Your task to perform on an android device: delete browsing data in the chrome app Image 0: 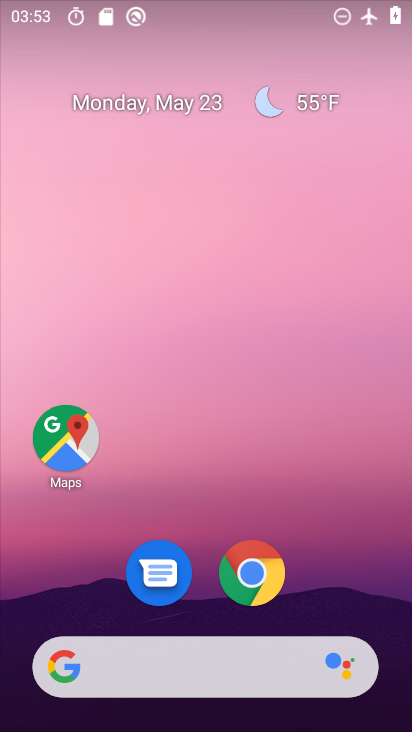
Step 0: click (248, 573)
Your task to perform on an android device: delete browsing data in the chrome app Image 1: 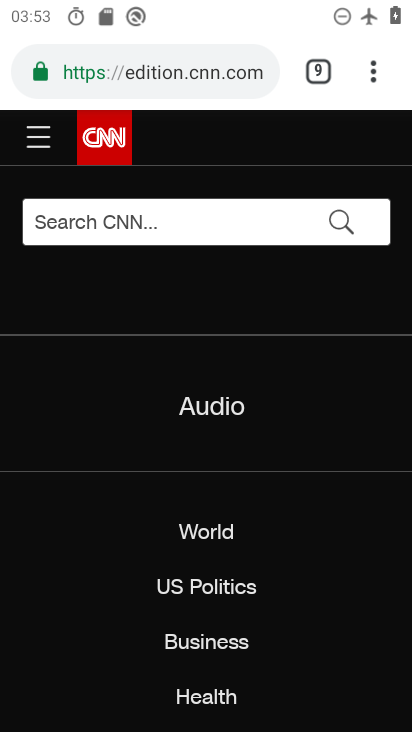
Step 1: click (378, 81)
Your task to perform on an android device: delete browsing data in the chrome app Image 2: 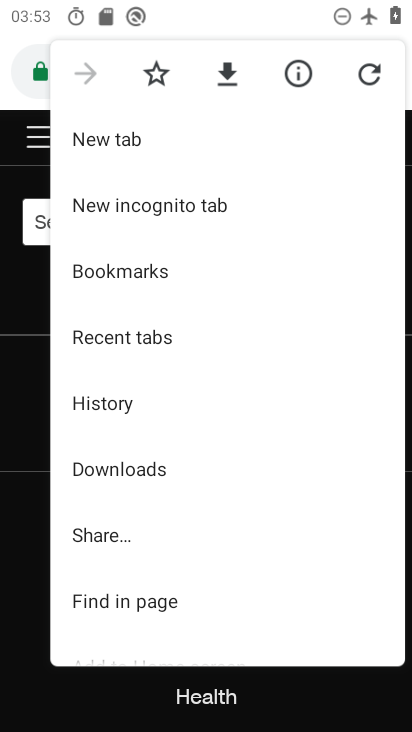
Step 2: click (112, 405)
Your task to perform on an android device: delete browsing data in the chrome app Image 3: 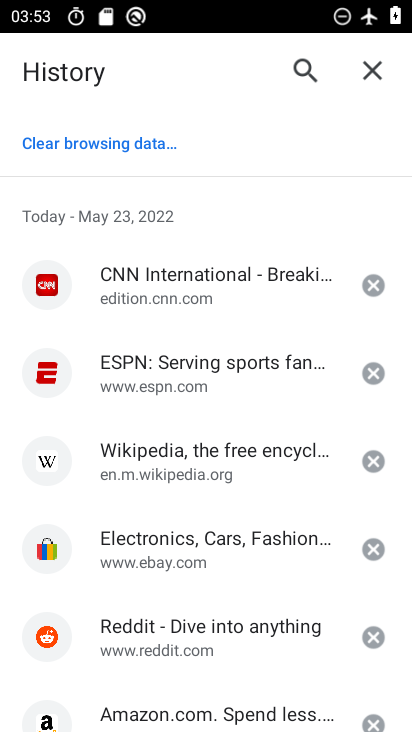
Step 3: click (127, 147)
Your task to perform on an android device: delete browsing data in the chrome app Image 4: 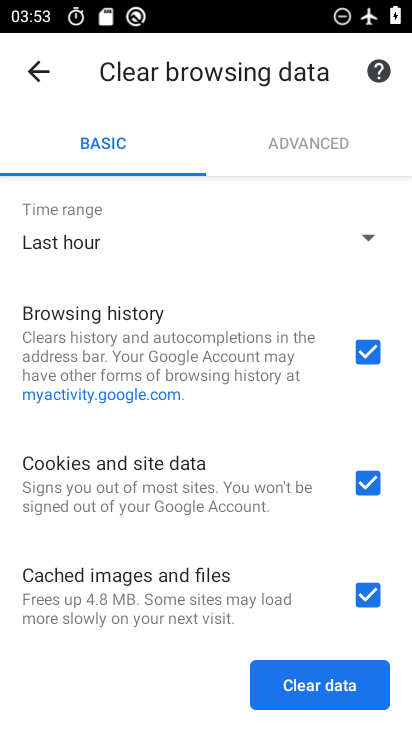
Step 4: click (313, 688)
Your task to perform on an android device: delete browsing data in the chrome app Image 5: 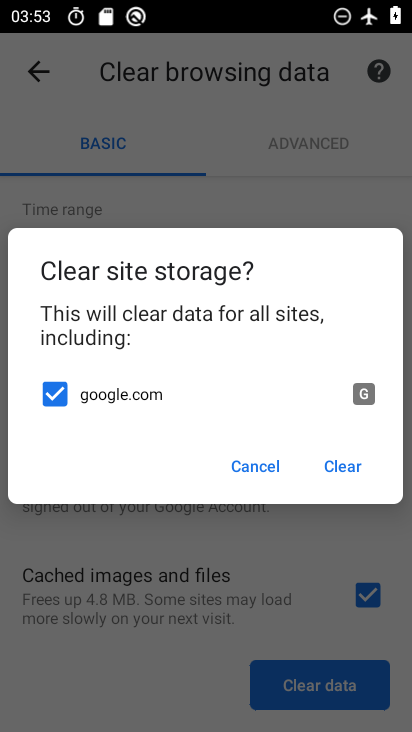
Step 5: click (349, 463)
Your task to perform on an android device: delete browsing data in the chrome app Image 6: 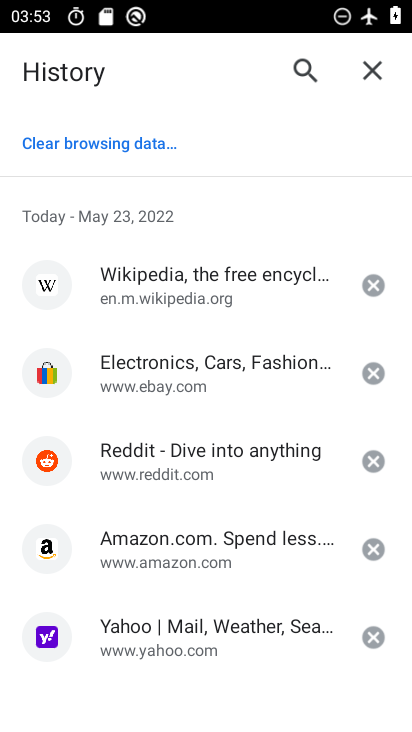
Step 6: click (88, 139)
Your task to perform on an android device: delete browsing data in the chrome app Image 7: 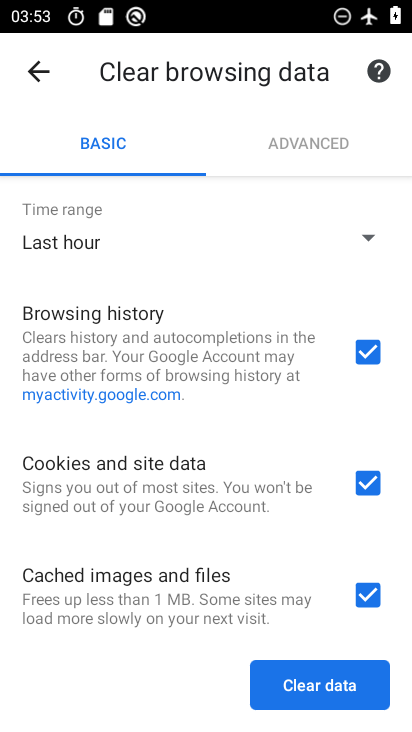
Step 7: click (371, 234)
Your task to perform on an android device: delete browsing data in the chrome app Image 8: 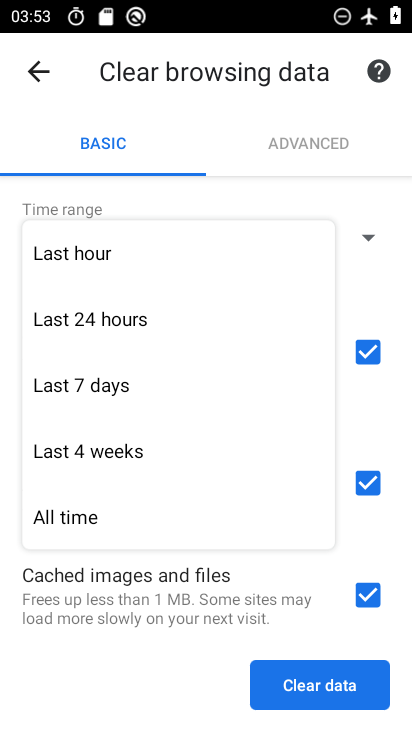
Step 8: click (106, 511)
Your task to perform on an android device: delete browsing data in the chrome app Image 9: 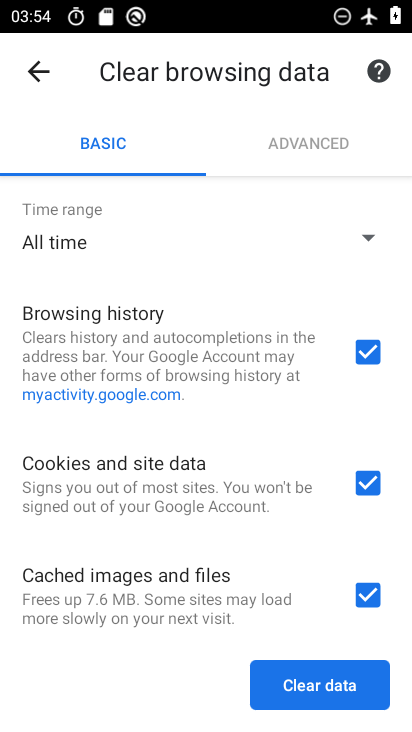
Step 9: click (300, 685)
Your task to perform on an android device: delete browsing data in the chrome app Image 10: 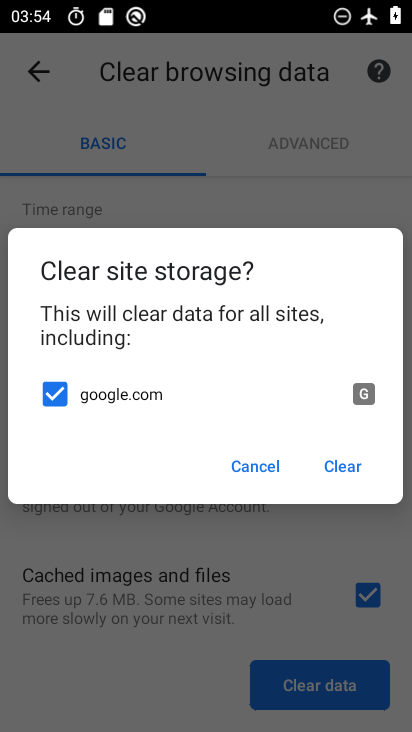
Step 10: click (335, 467)
Your task to perform on an android device: delete browsing data in the chrome app Image 11: 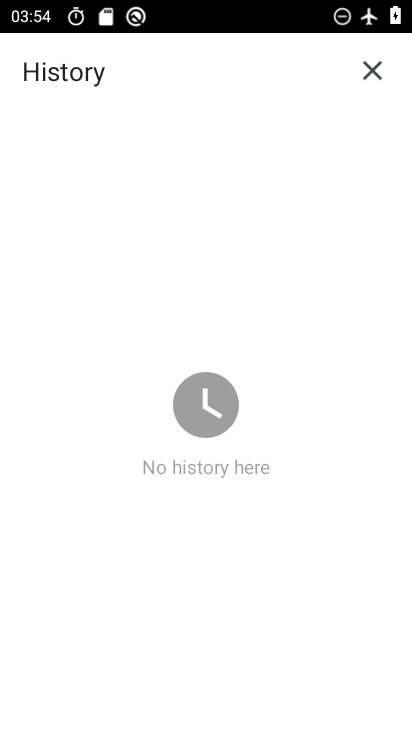
Step 11: task complete